Your task to perform on an android device: Go to privacy settings Image 0: 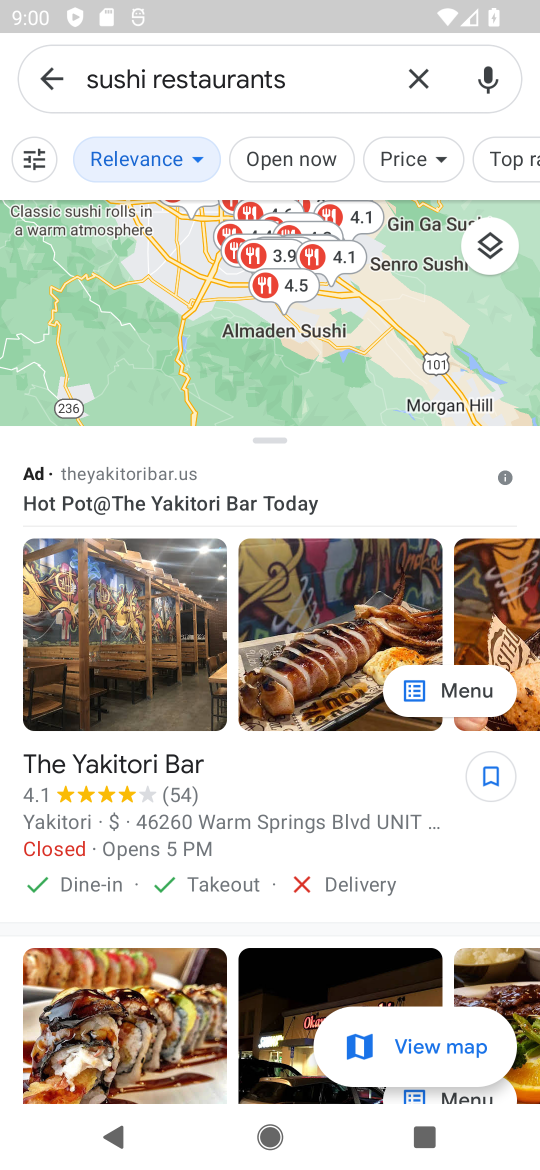
Step 0: press home button
Your task to perform on an android device: Go to privacy settings Image 1: 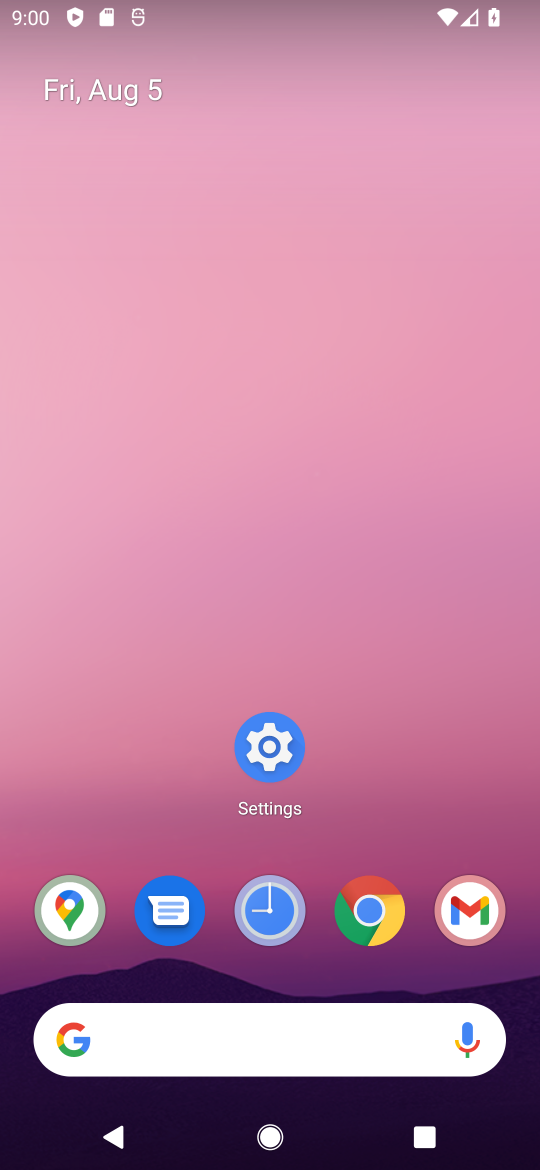
Step 1: click (276, 741)
Your task to perform on an android device: Go to privacy settings Image 2: 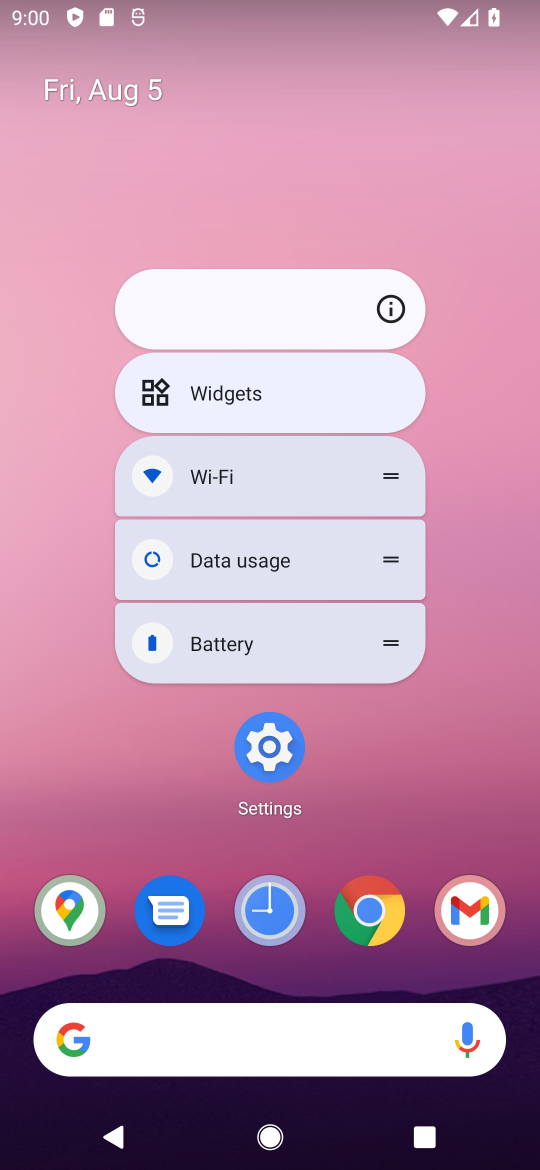
Step 2: click (276, 741)
Your task to perform on an android device: Go to privacy settings Image 3: 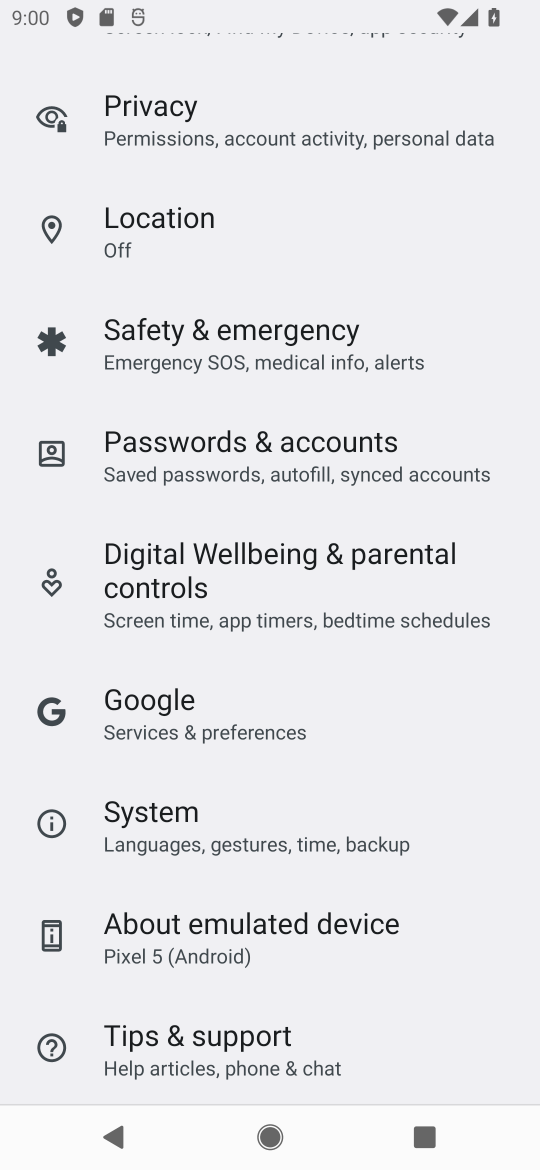
Step 3: click (162, 119)
Your task to perform on an android device: Go to privacy settings Image 4: 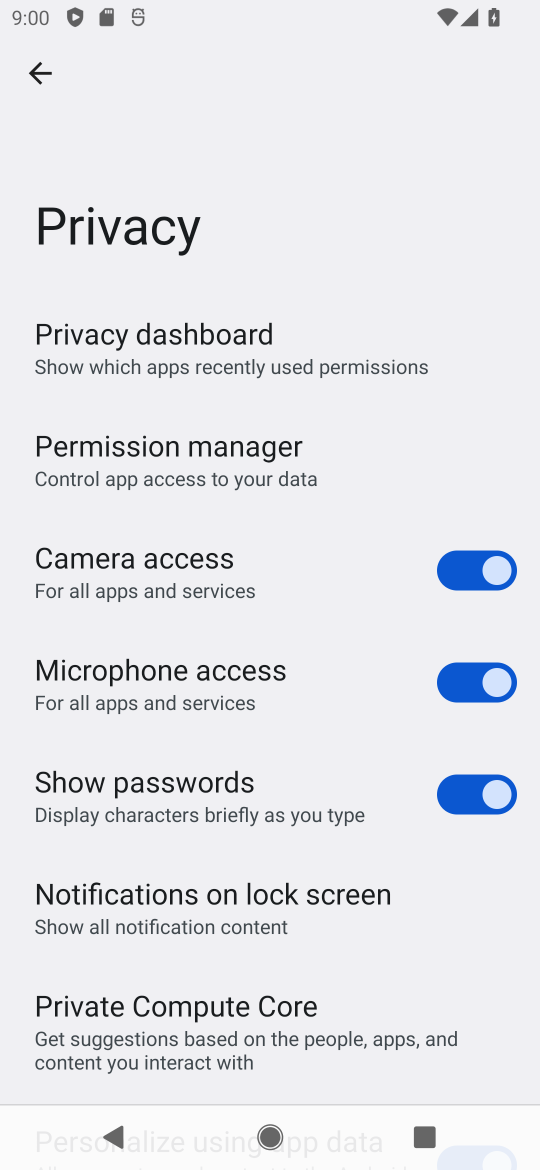
Step 4: task complete